Your task to perform on an android device: turn off picture-in-picture Image 0: 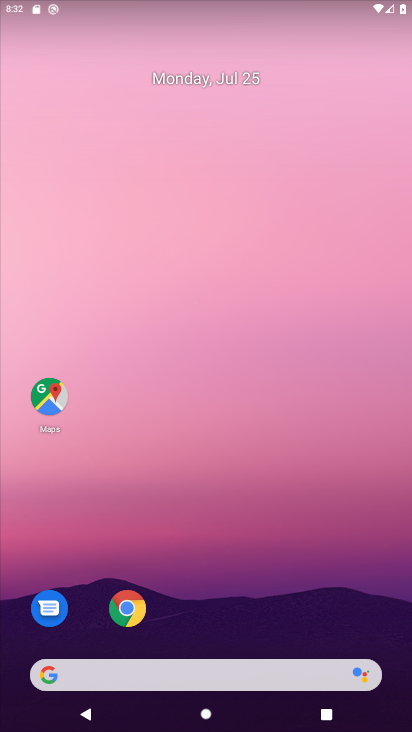
Step 0: click (125, 609)
Your task to perform on an android device: turn off picture-in-picture Image 1: 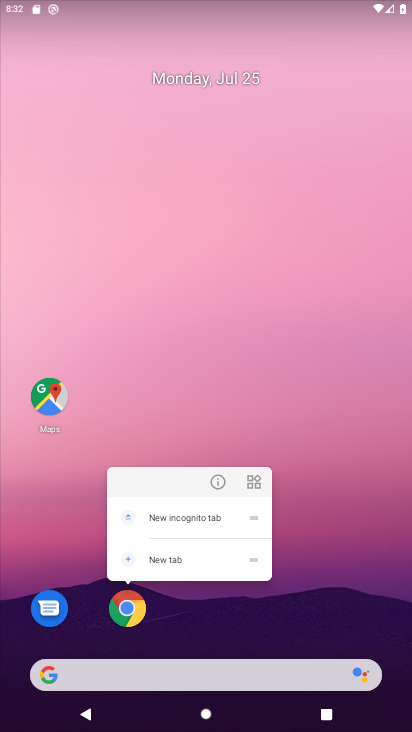
Step 1: click (214, 483)
Your task to perform on an android device: turn off picture-in-picture Image 2: 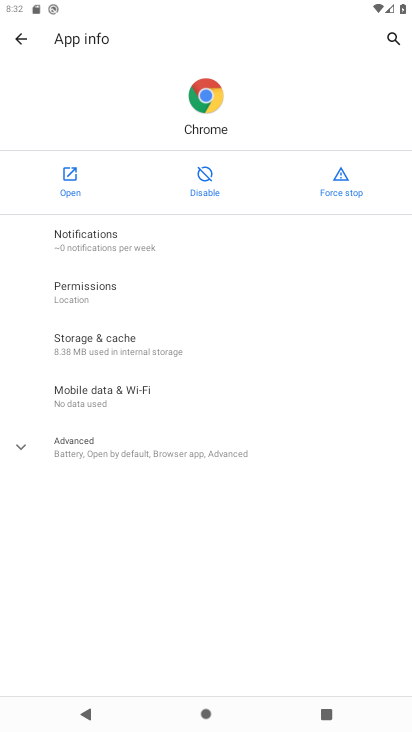
Step 2: click (94, 430)
Your task to perform on an android device: turn off picture-in-picture Image 3: 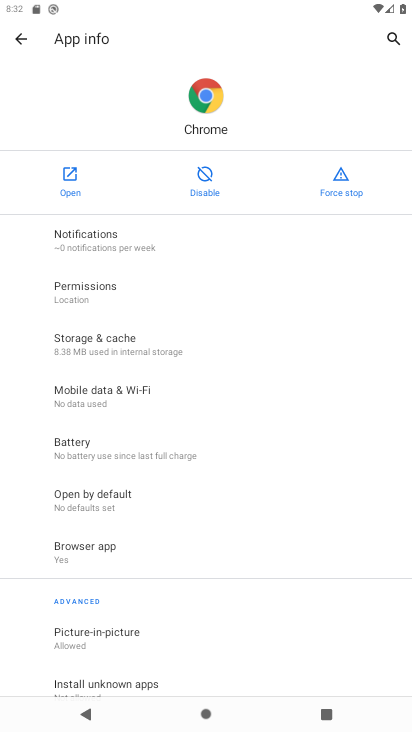
Step 3: click (116, 641)
Your task to perform on an android device: turn off picture-in-picture Image 4: 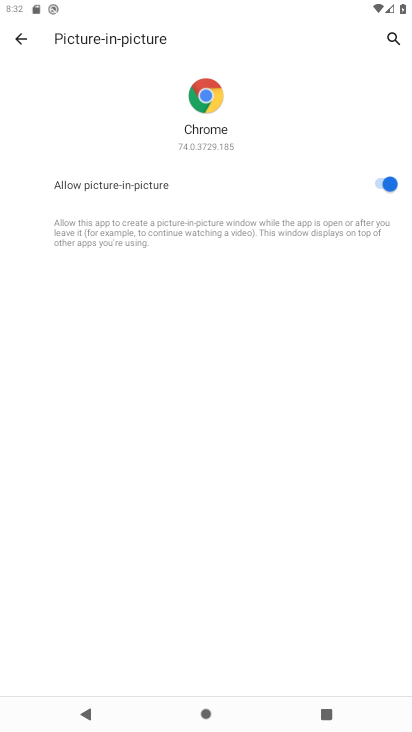
Step 4: click (371, 193)
Your task to perform on an android device: turn off picture-in-picture Image 5: 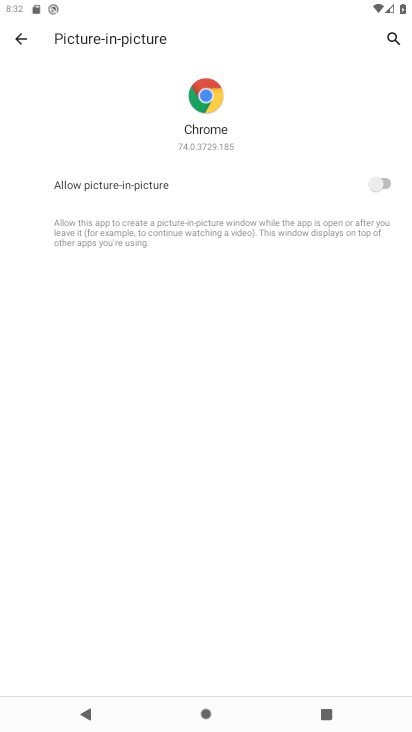
Step 5: task complete